Your task to perform on an android device: visit the assistant section in the google photos Image 0: 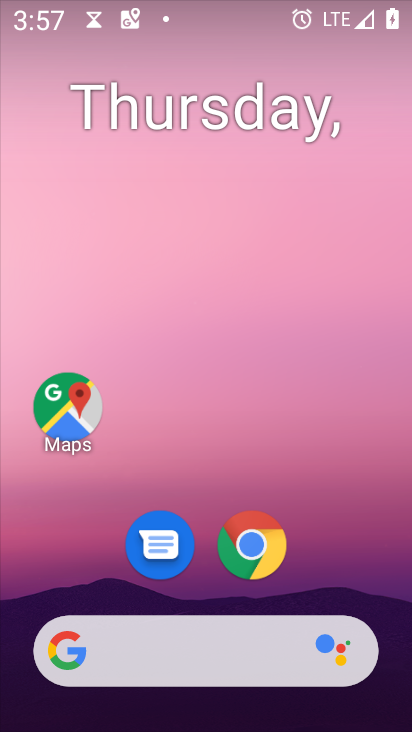
Step 0: drag from (377, 522) to (316, 78)
Your task to perform on an android device: visit the assistant section in the google photos Image 1: 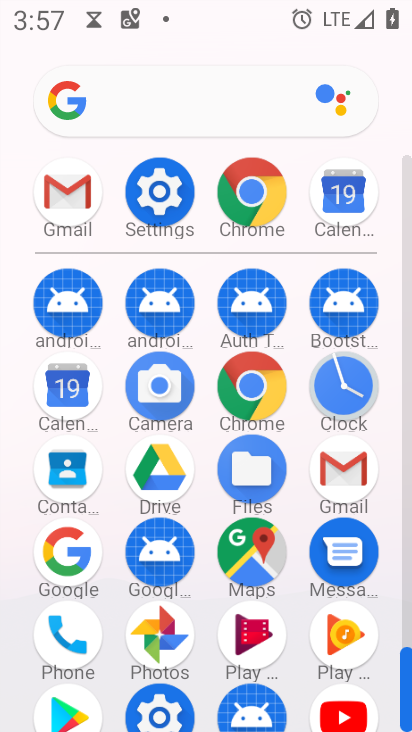
Step 1: drag from (384, 538) to (410, 136)
Your task to perform on an android device: visit the assistant section in the google photos Image 2: 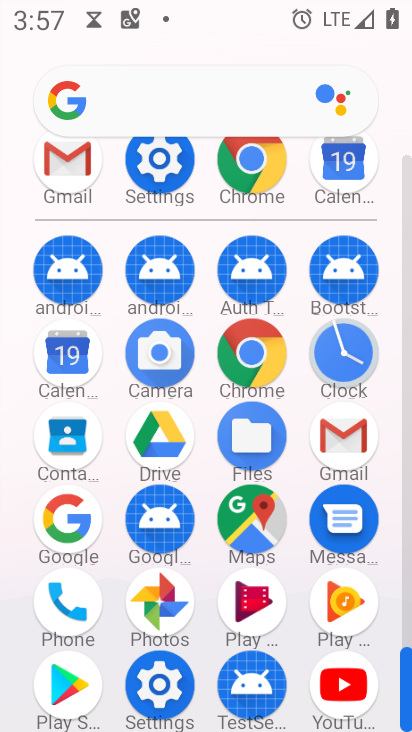
Step 2: click (137, 623)
Your task to perform on an android device: visit the assistant section in the google photos Image 3: 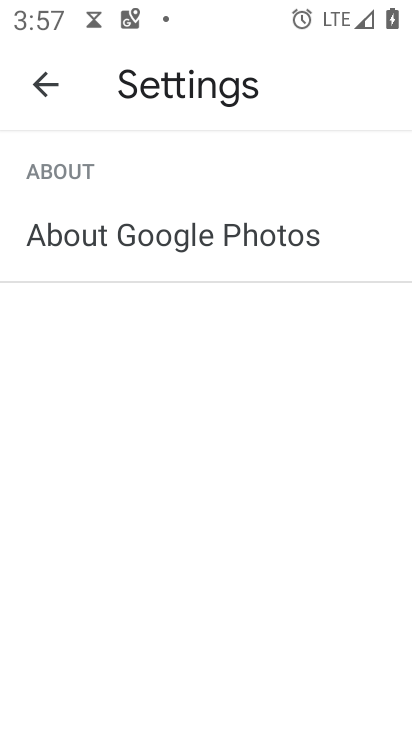
Step 3: click (48, 103)
Your task to perform on an android device: visit the assistant section in the google photos Image 4: 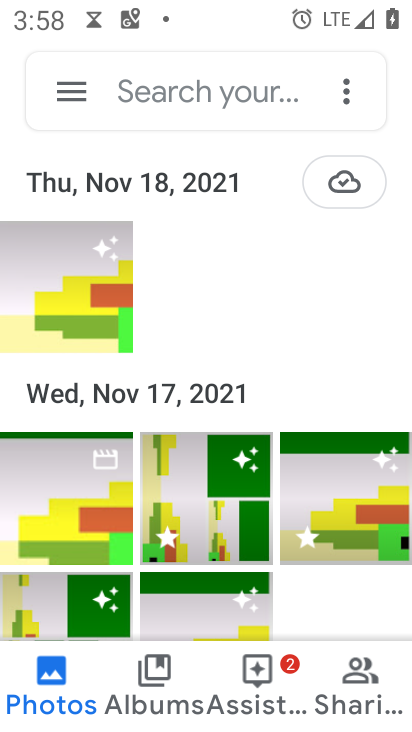
Step 4: click (259, 696)
Your task to perform on an android device: visit the assistant section in the google photos Image 5: 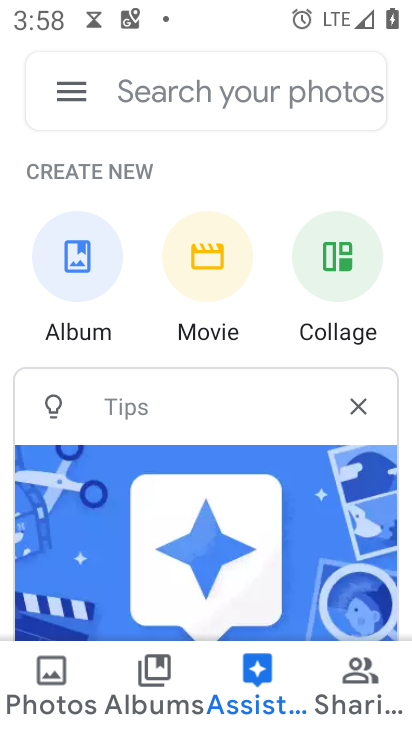
Step 5: task complete